Your task to perform on an android device: Go to accessibility settings Image 0: 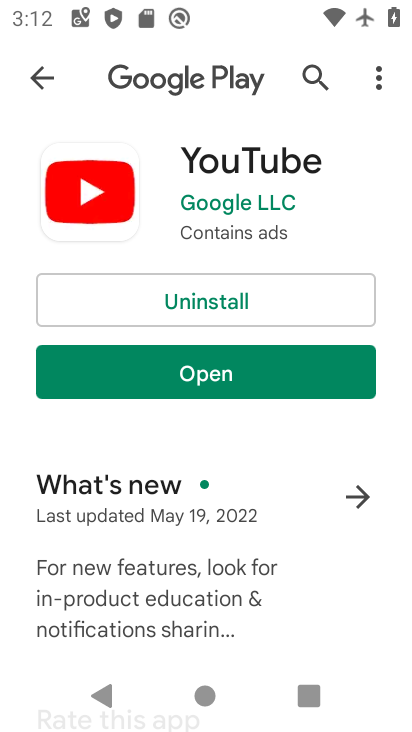
Step 0: press home button
Your task to perform on an android device: Go to accessibility settings Image 1: 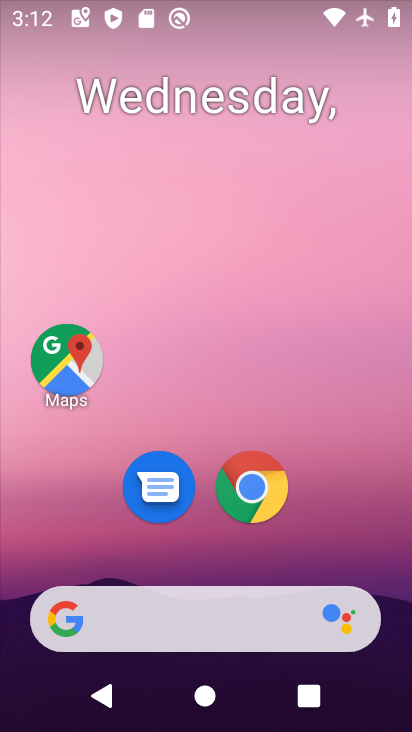
Step 1: drag from (341, 508) to (363, 0)
Your task to perform on an android device: Go to accessibility settings Image 2: 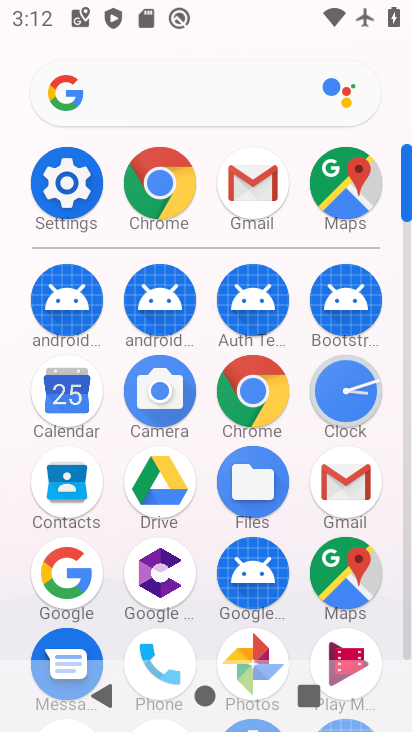
Step 2: click (81, 195)
Your task to perform on an android device: Go to accessibility settings Image 3: 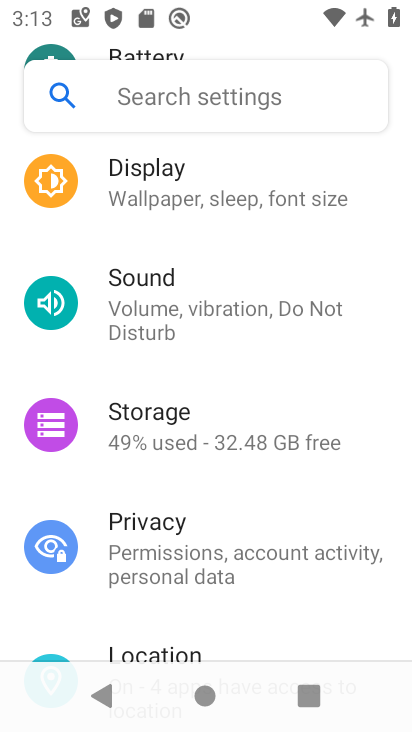
Step 3: drag from (220, 524) to (213, 165)
Your task to perform on an android device: Go to accessibility settings Image 4: 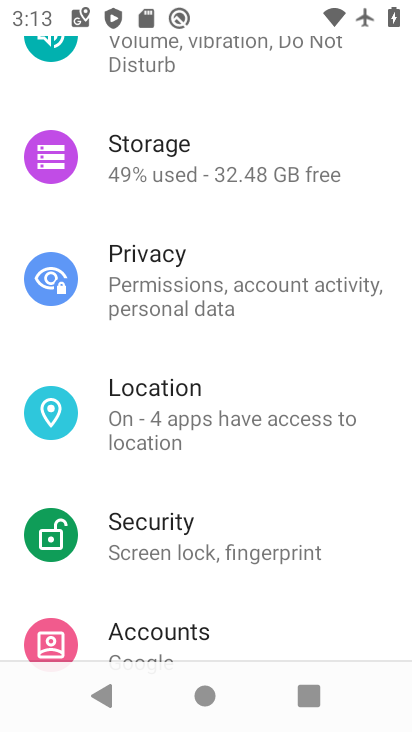
Step 4: drag from (196, 501) to (223, 184)
Your task to perform on an android device: Go to accessibility settings Image 5: 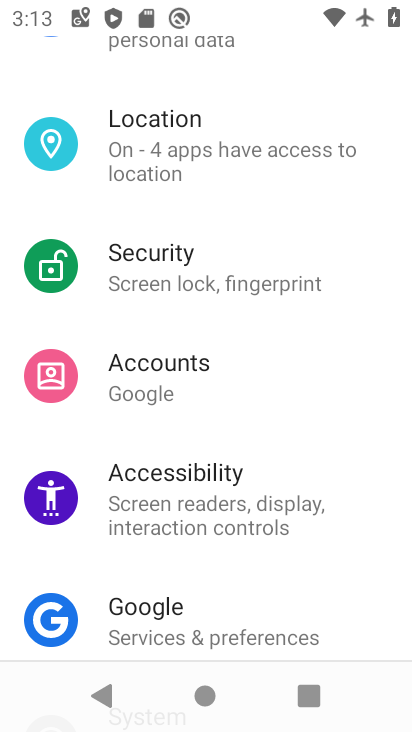
Step 5: click (191, 495)
Your task to perform on an android device: Go to accessibility settings Image 6: 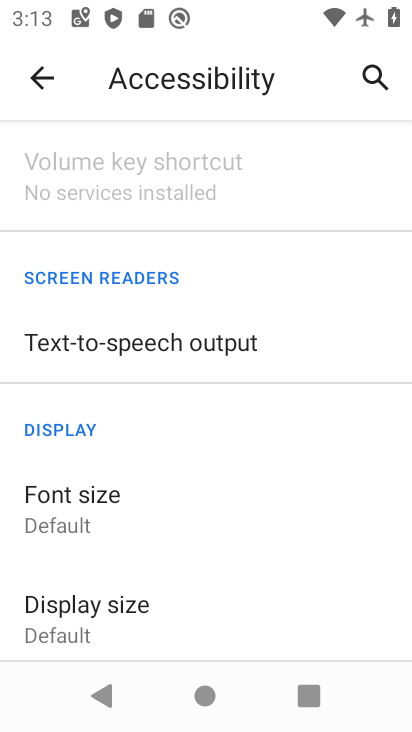
Step 6: task complete